Your task to perform on an android device: Show me popular games on the Play Store Image 0: 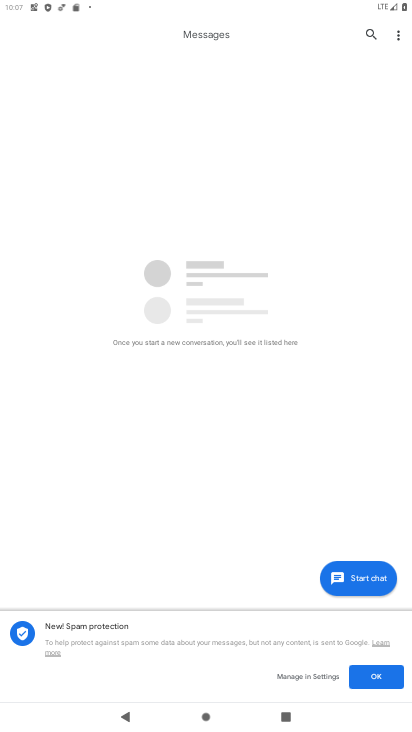
Step 0: press home button
Your task to perform on an android device: Show me popular games on the Play Store Image 1: 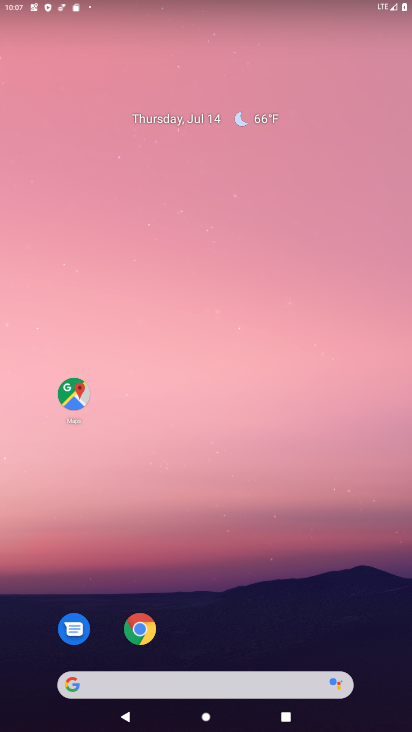
Step 1: drag from (247, 627) to (270, 197)
Your task to perform on an android device: Show me popular games on the Play Store Image 2: 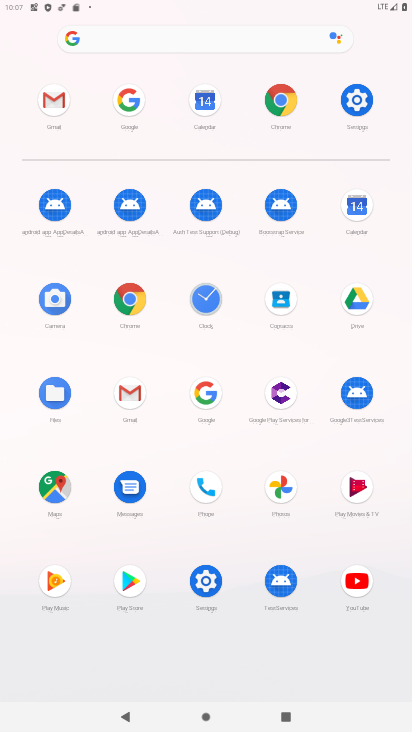
Step 2: click (137, 588)
Your task to perform on an android device: Show me popular games on the Play Store Image 3: 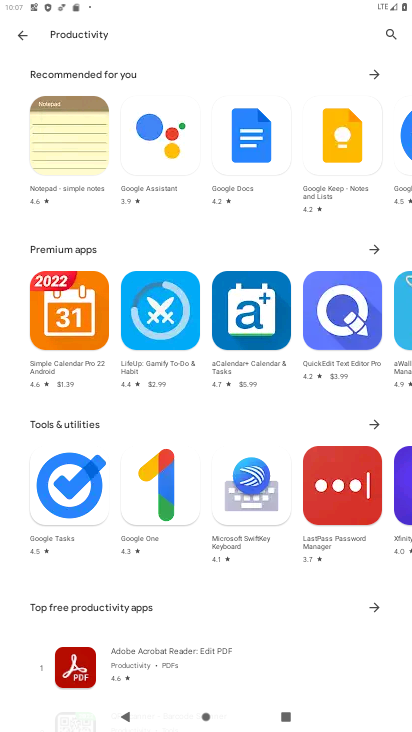
Step 3: click (23, 29)
Your task to perform on an android device: Show me popular games on the Play Store Image 4: 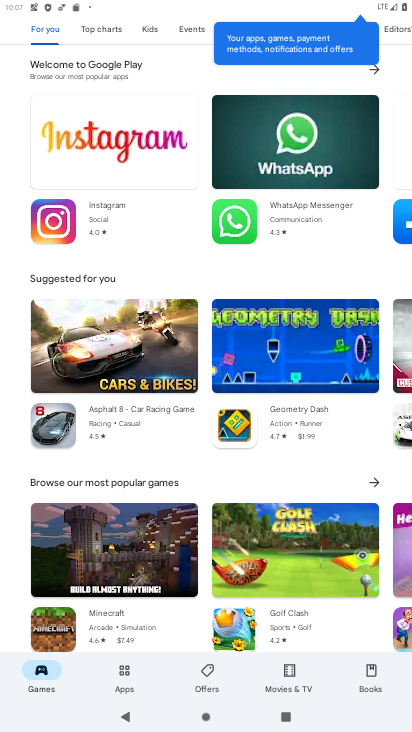
Step 4: click (123, 481)
Your task to perform on an android device: Show me popular games on the Play Store Image 5: 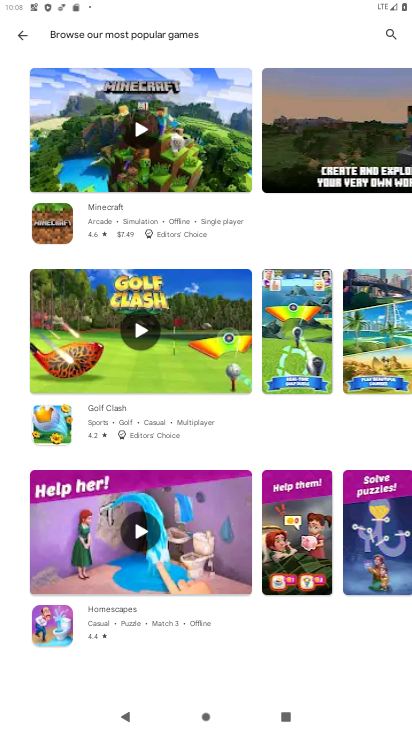
Step 5: task complete